Your task to perform on an android device: find which apps use the phone's location Image 0: 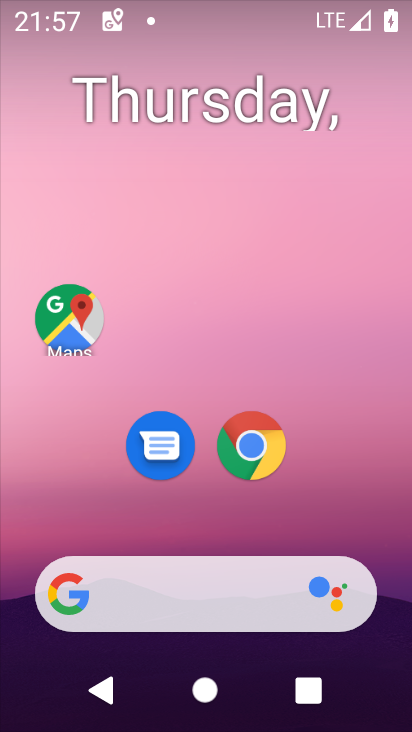
Step 0: drag from (191, 537) to (299, 3)
Your task to perform on an android device: find which apps use the phone's location Image 1: 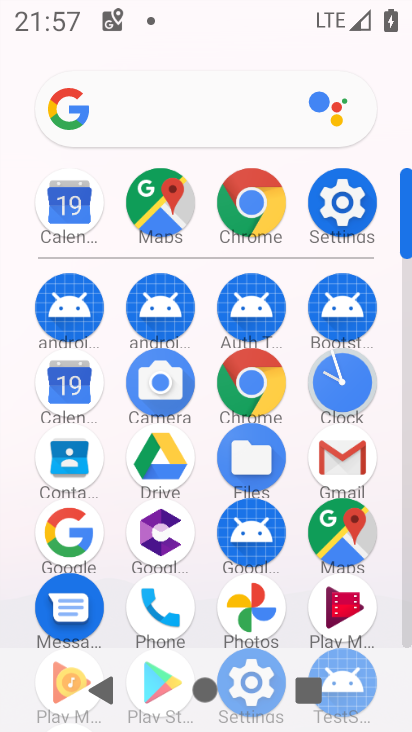
Step 1: click (341, 185)
Your task to perform on an android device: find which apps use the phone's location Image 2: 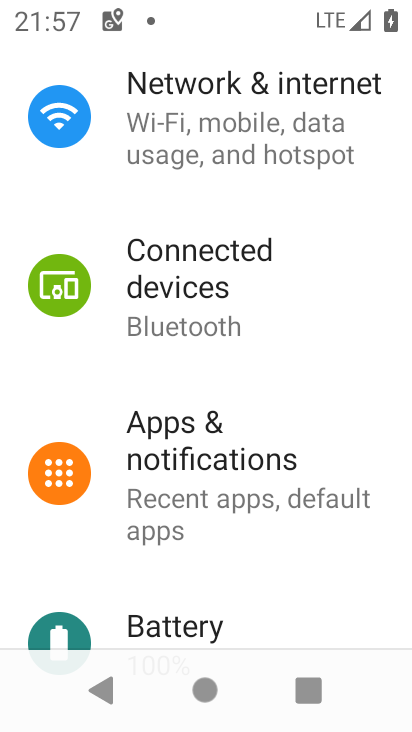
Step 2: drag from (210, 242) to (348, 96)
Your task to perform on an android device: find which apps use the phone's location Image 3: 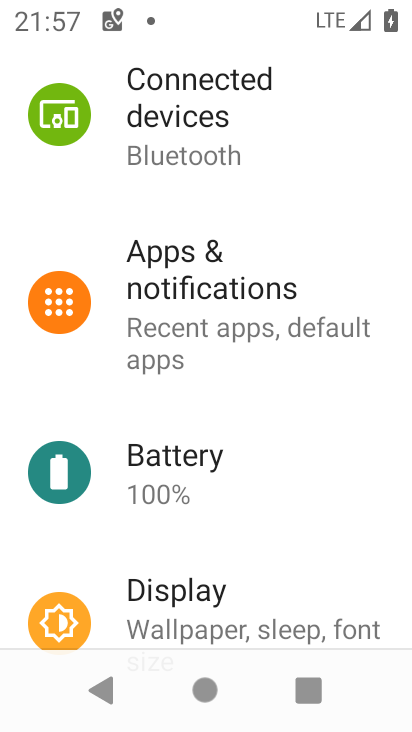
Step 3: drag from (206, 580) to (308, 38)
Your task to perform on an android device: find which apps use the phone's location Image 4: 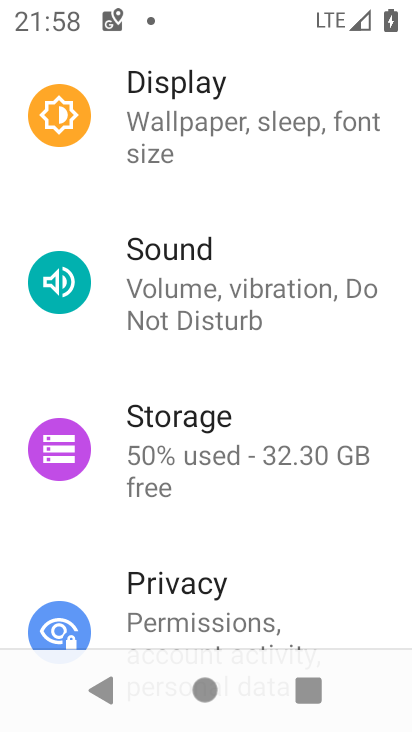
Step 4: drag from (196, 525) to (288, 114)
Your task to perform on an android device: find which apps use the phone's location Image 5: 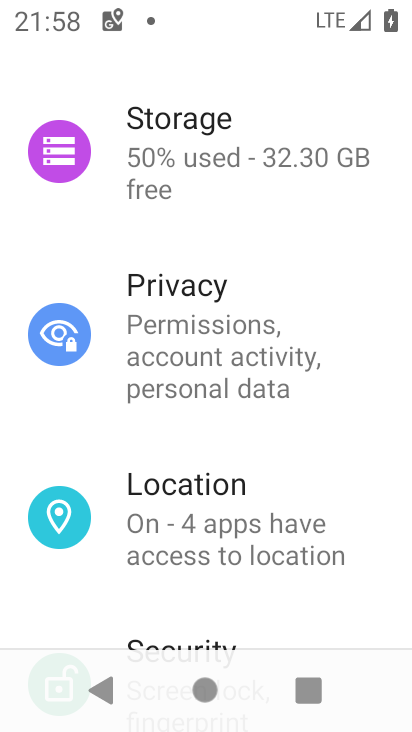
Step 5: click (195, 506)
Your task to perform on an android device: find which apps use the phone's location Image 6: 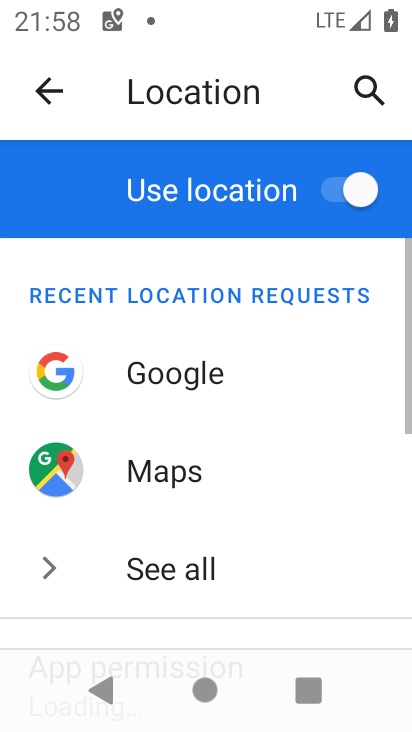
Step 6: drag from (221, 528) to (336, 110)
Your task to perform on an android device: find which apps use the phone's location Image 7: 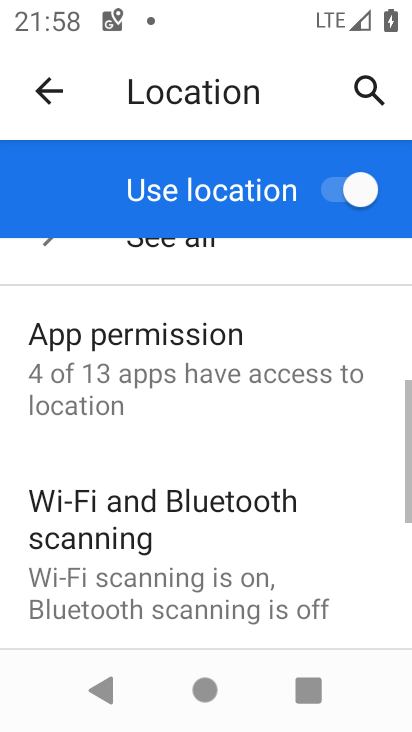
Step 7: drag from (187, 578) to (238, 238)
Your task to perform on an android device: find which apps use the phone's location Image 8: 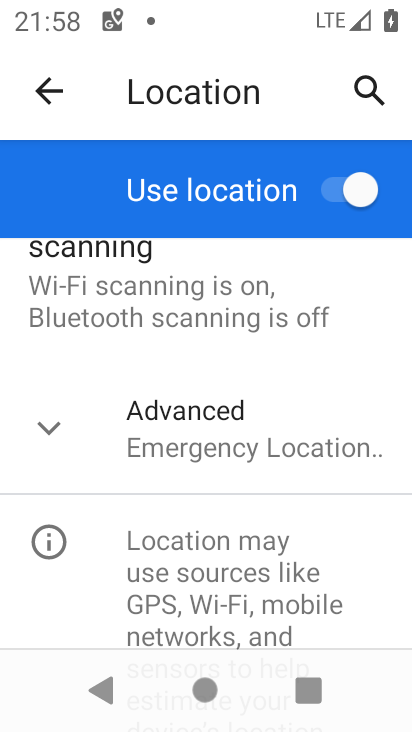
Step 8: click (127, 454)
Your task to perform on an android device: find which apps use the phone's location Image 9: 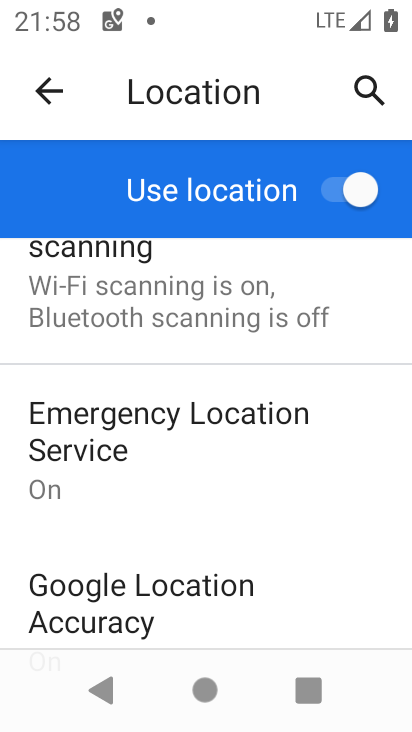
Step 9: drag from (171, 326) to (295, 728)
Your task to perform on an android device: find which apps use the phone's location Image 10: 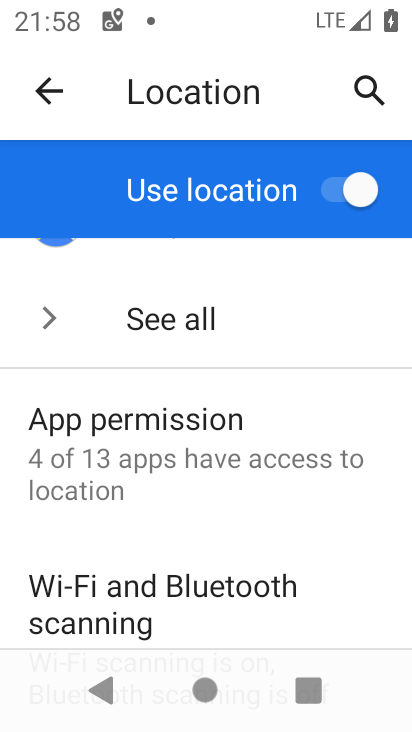
Step 10: click (137, 462)
Your task to perform on an android device: find which apps use the phone's location Image 11: 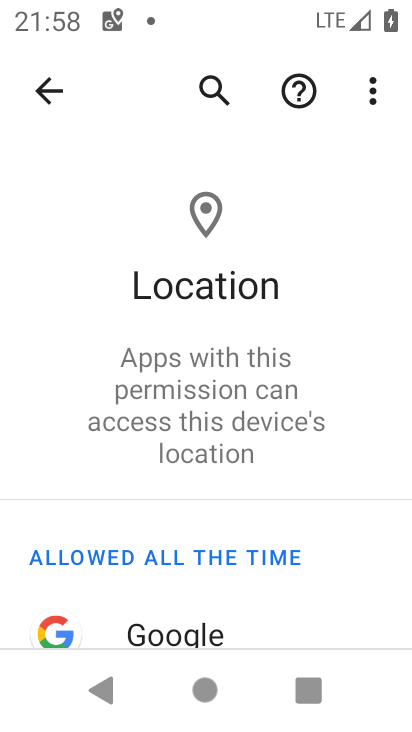
Step 11: task complete